Your task to perform on an android device: Open calendar and show me the fourth week of next month Image 0: 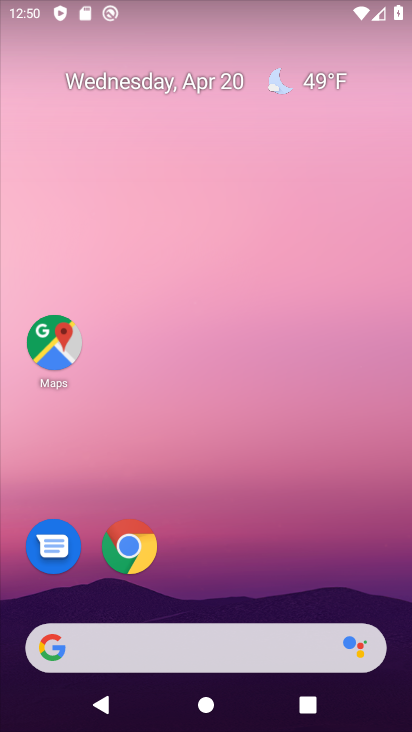
Step 0: drag from (234, 563) to (317, 27)
Your task to perform on an android device: Open calendar and show me the fourth week of next month Image 1: 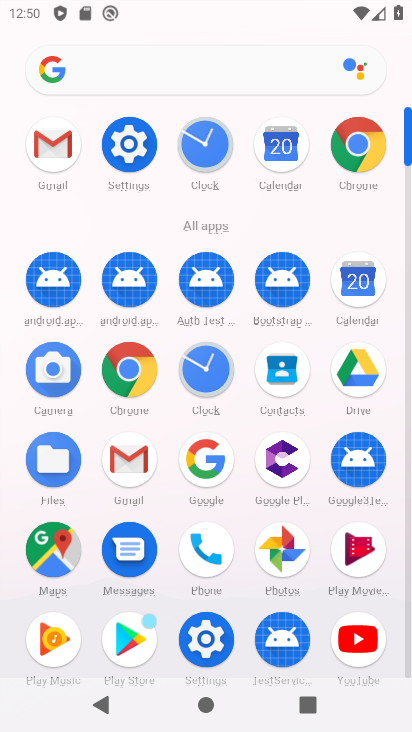
Step 1: click (276, 148)
Your task to perform on an android device: Open calendar and show me the fourth week of next month Image 2: 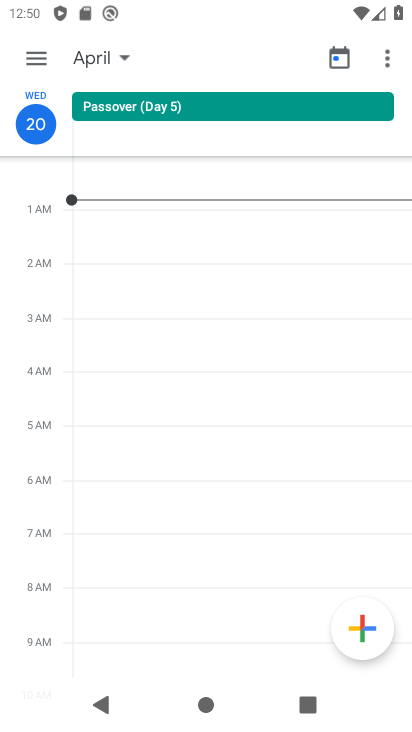
Step 2: click (116, 56)
Your task to perform on an android device: Open calendar and show me the fourth week of next month Image 3: 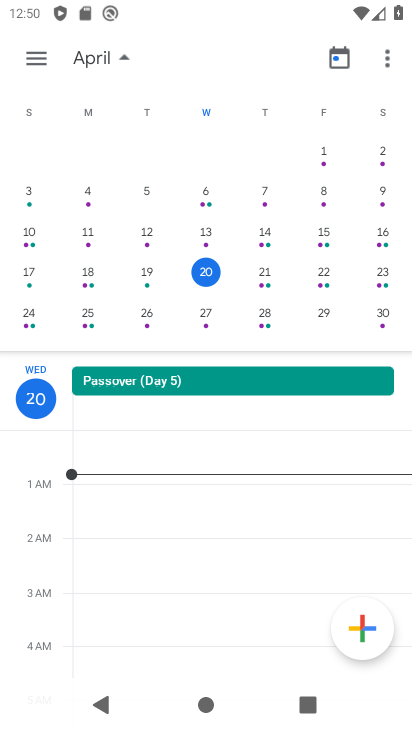
Step 3: drag from (367, 229) to (54, 278)
Your task to perform on an android device: Open calendar and show me the fourth week of next month Image 4: 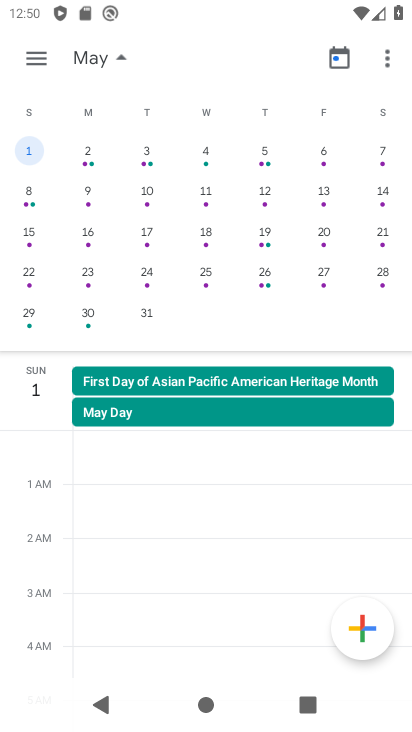
Step 4: click (352, 230)
Your task to perform on an android device: Open calendar and show me the fourth week of next month Image 5: 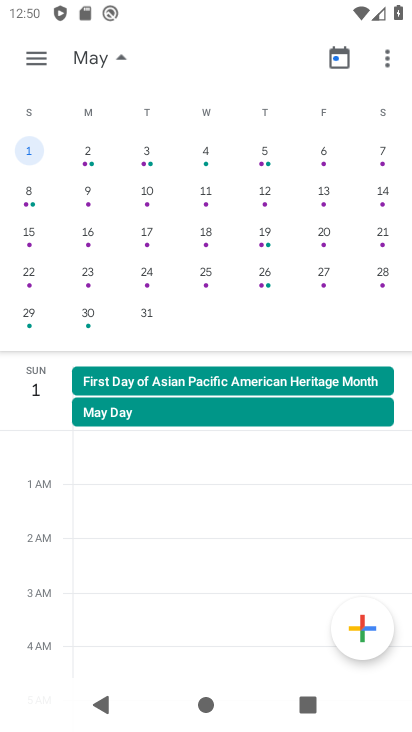
Step 5: click (89, 268)
Your task to perform on an android device: Open calendar and show me the fourth week of next month Image 6: 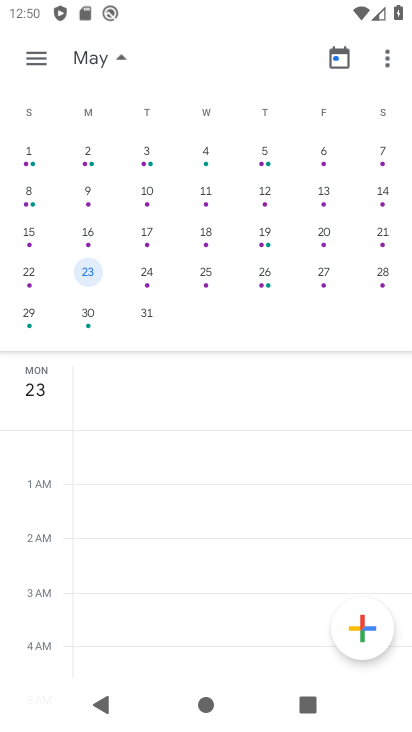
Step 6: task complete